Your task to perform on an android device: turn on the 24-hour format for clock Image 0: 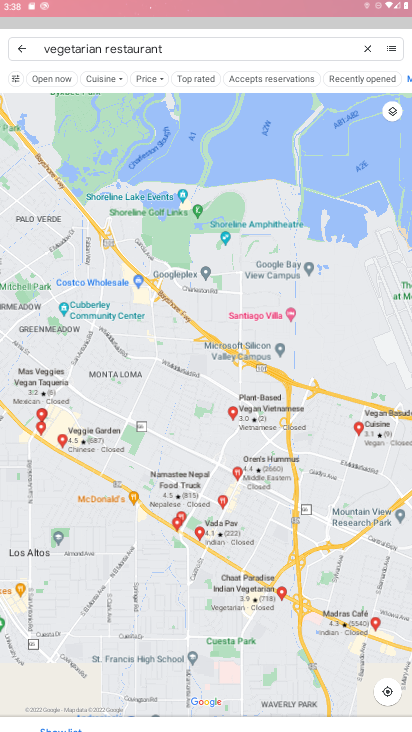
Step 0: press home button
Your task to perform on an android device: turn on the 24-hour format for clock Image 1: 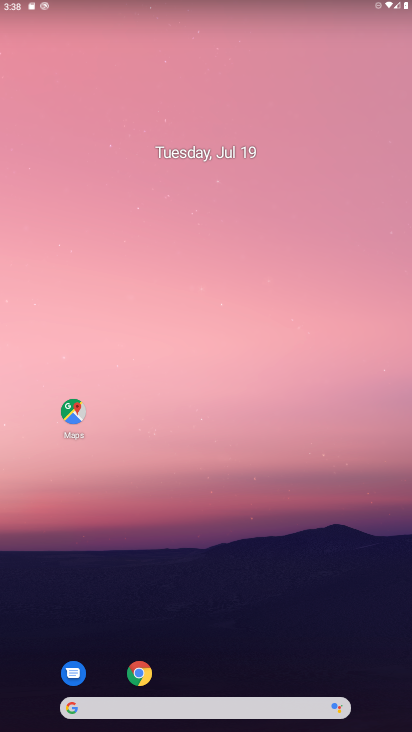
Step 1: drag from (189, 666) to (198, 0)
Your task to perform on an android device: turn on the 24-hour format for clock Image 2: 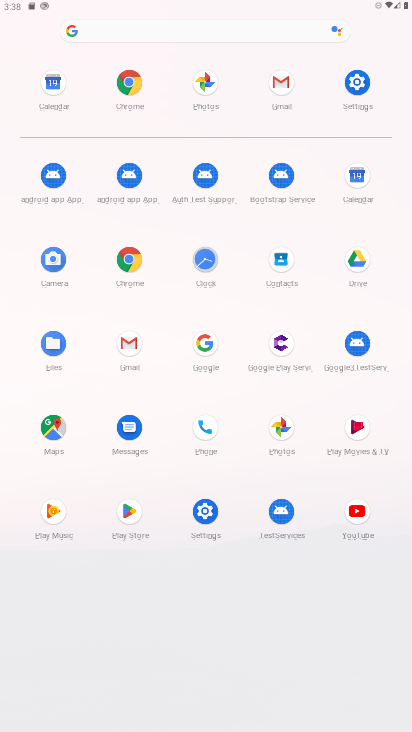
Step 2: click (214, 518)
Your task to perform on an android device: turn on the 24-hour format for clock Image 3: 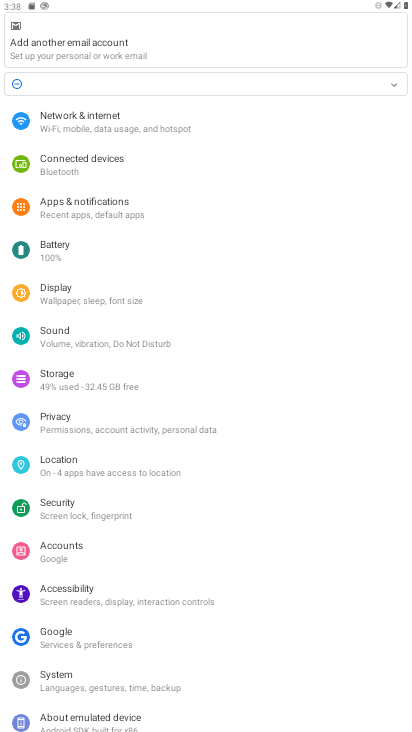
Step 3: click (85, 686)
Your task to perform on an android device: turn on the 24-hour format for clock Image 4: 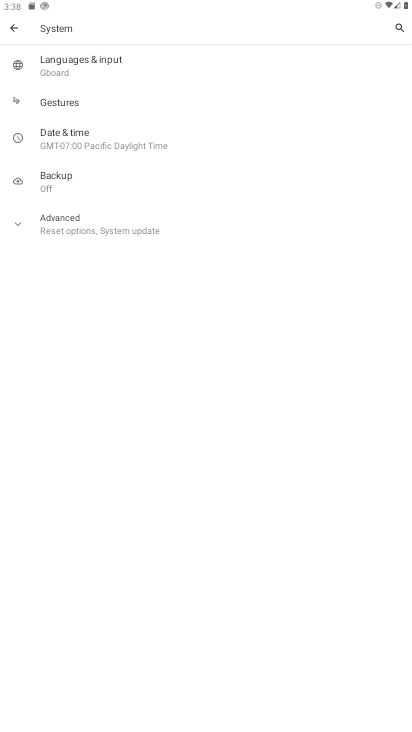
Step 4: click (112, 140)
Your task to perform on an android device: turn on the 24-hour format for clock Image 5: 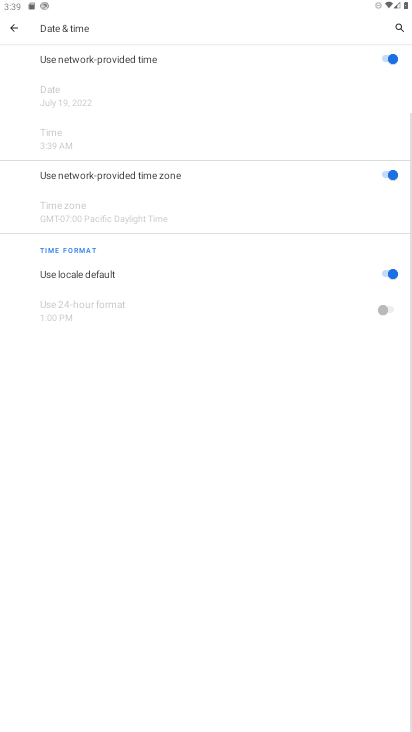
Step 5: click (389, 272)
Your task to perform on an android device: turn on the 24-hour format for clock Image 6: 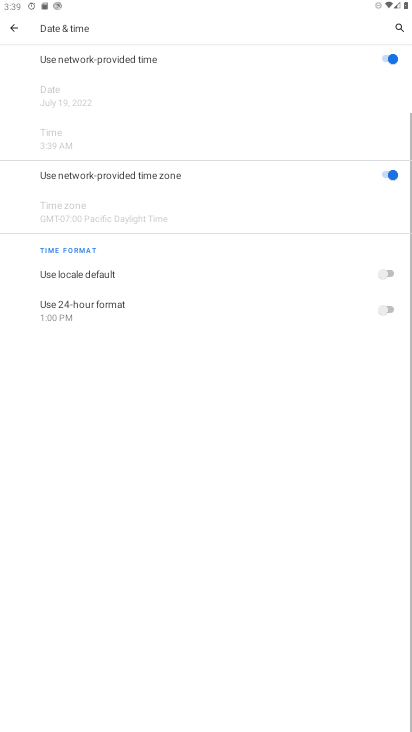
Step 6: click (394, 301)
Your task to perform on an android device: turn on the 24-hour format for clock Image 7: 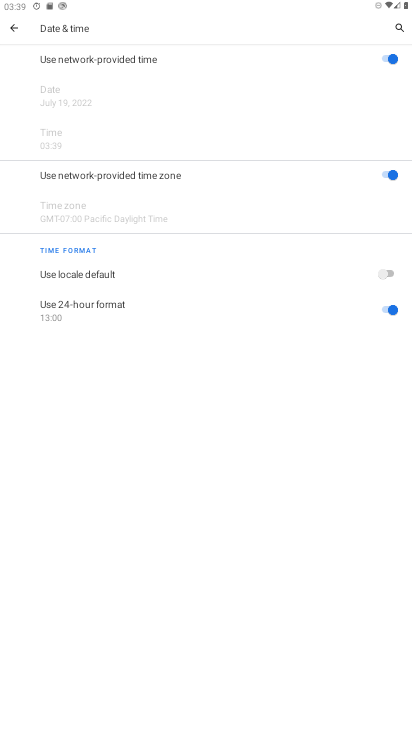
Step 7: task complete